Your task to perform on an android device: What's the weather going to be tomorrow? Image 0: 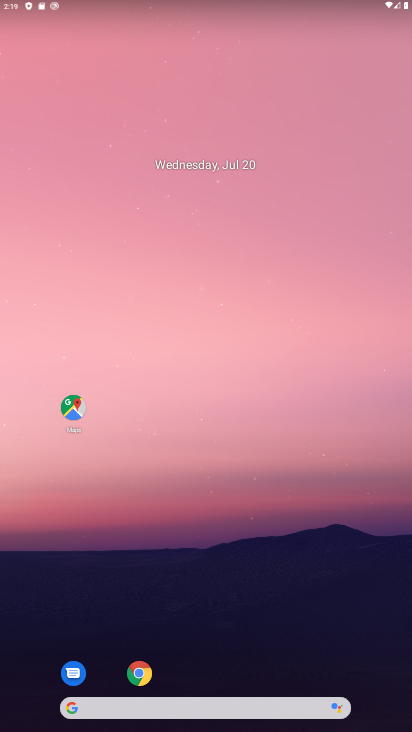
Step 0: drag from (225, 682) to (192, 11)
Your task to perform on an android device: What's the weather going to be tomorrow? Image 1: 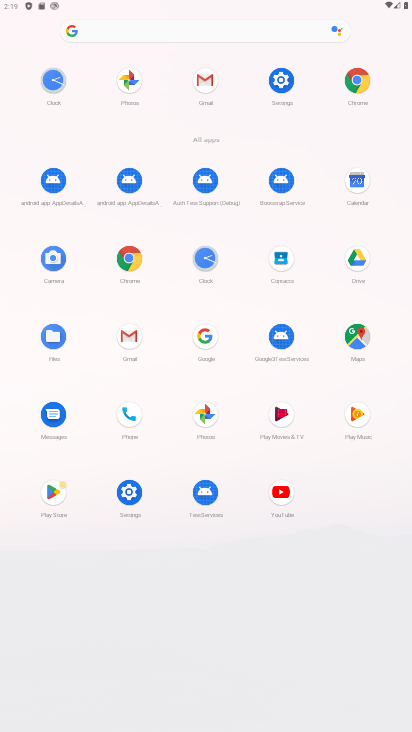
Step 1: click (203, 348)
Your task to perform on an android device: What's the weather going to be tomorrow? Image 2: 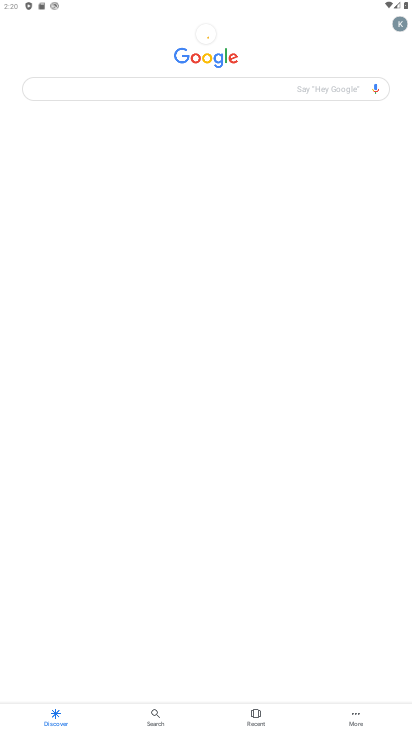
Step 2: click (203, 90)
Your task to perform on an android device: What's the weather going to be tomorrow? Image 3: 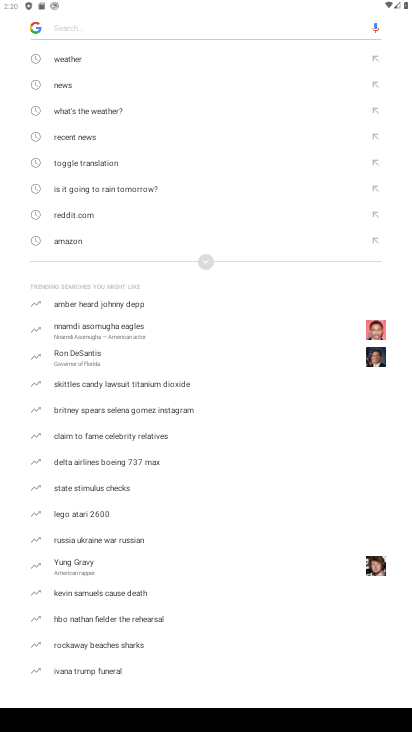
Step 3: click (75, 64)
Your task to perform on an android device: What's the weather going to be tomorrow? Image 4: 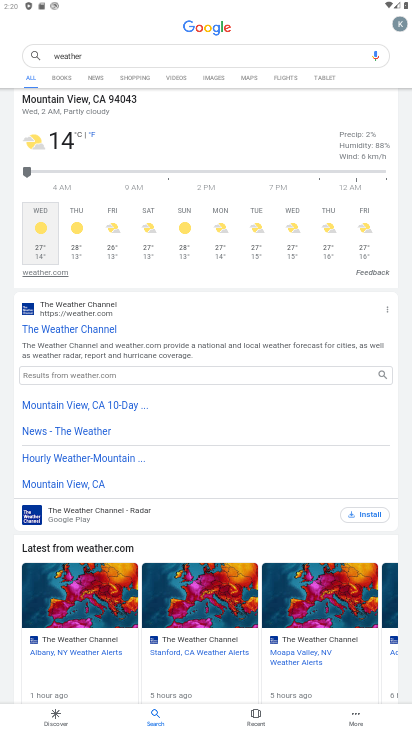
Step 4: click (66, 252)
Your task to perform on an android device: What's the weather going to be tomorrow? Image 5: 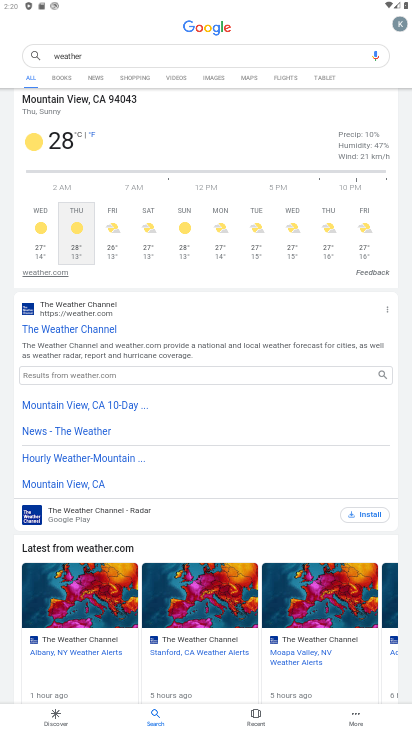
Step 5: task complete